Your task to perform on an android device: Search for a new skincare product Image 0: 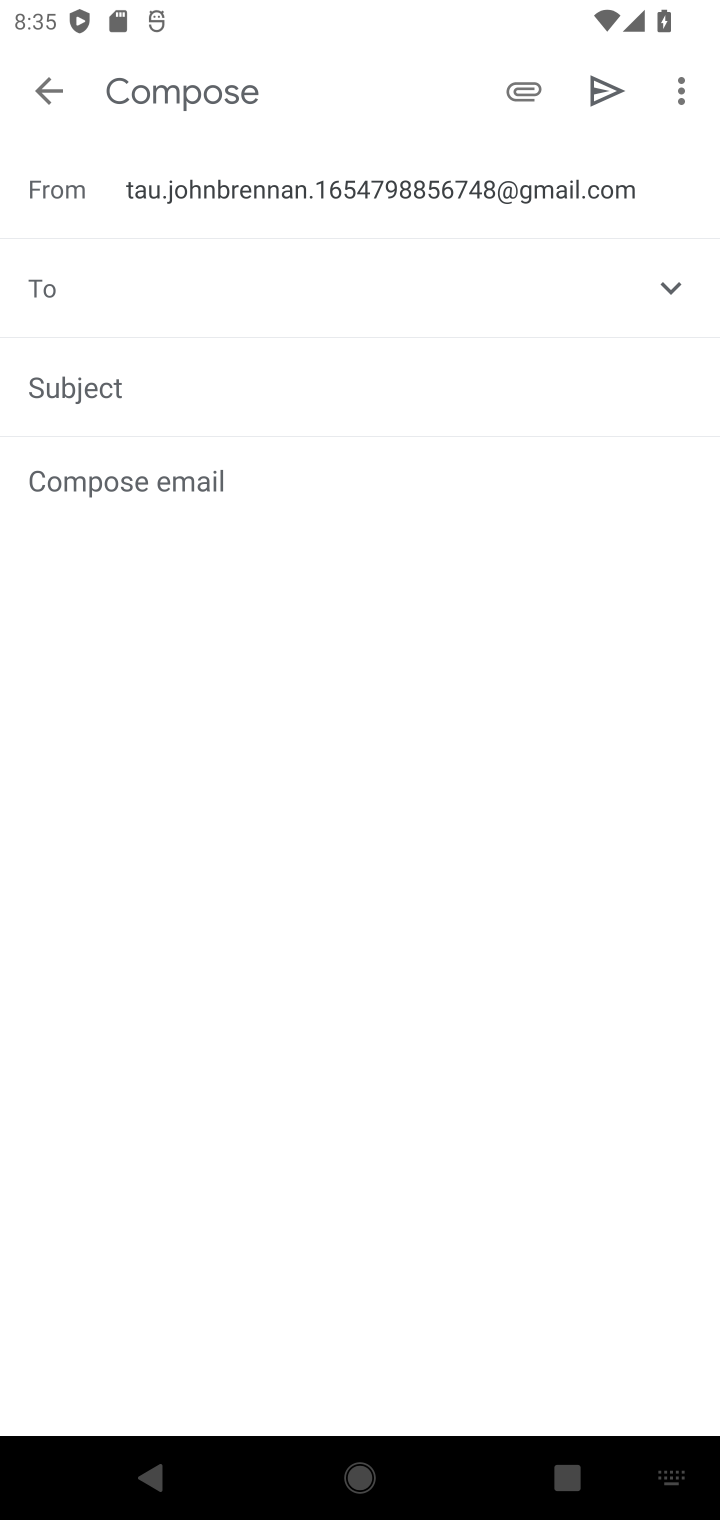
Step 0: press home button
Your task to perform on an android device: Search for a new skincare product Image 1: 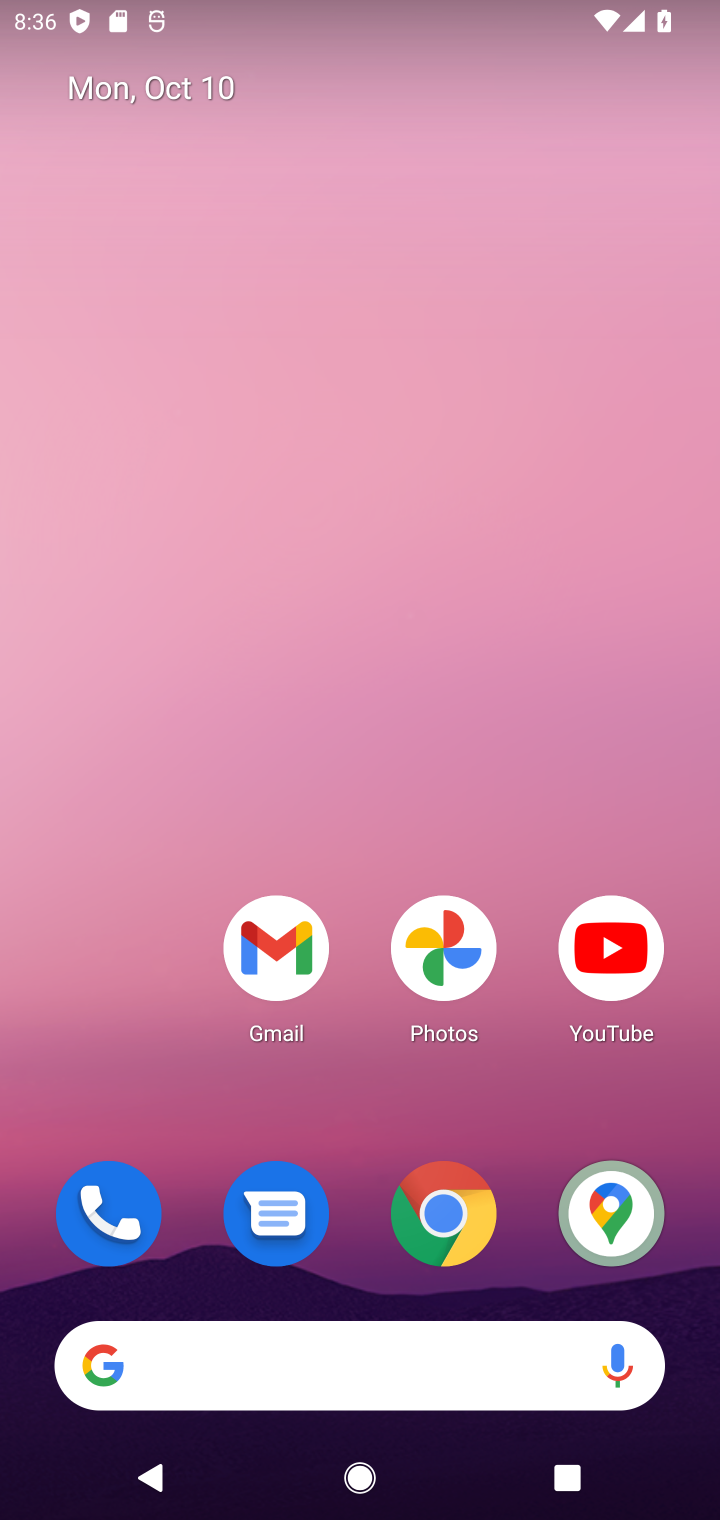
Step 1: click (278, 1384)
Your task to perform on an android device: Search for a new skincare product Image 2: 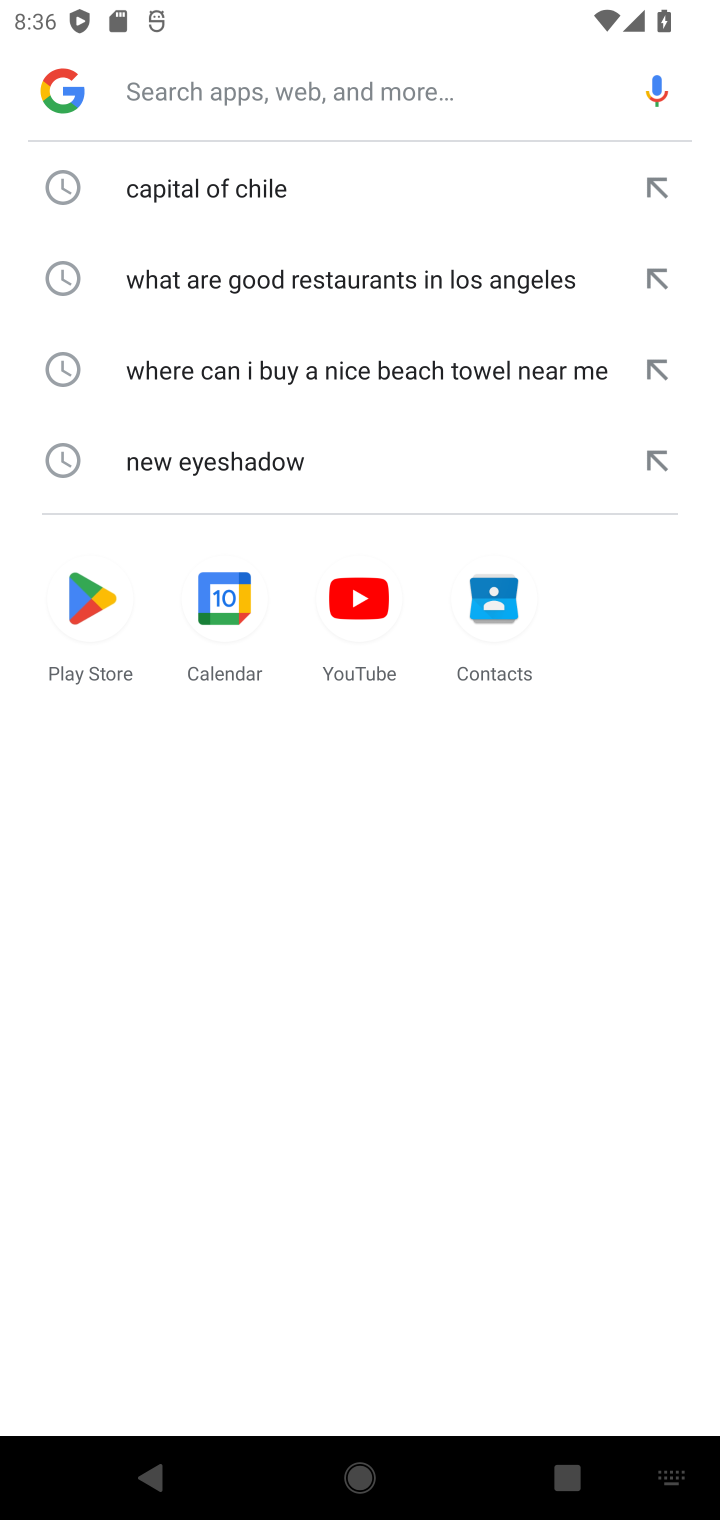
Step 2: click (185, 101)
Your task to perform on an android device: Search for a new skincare product Image 3: 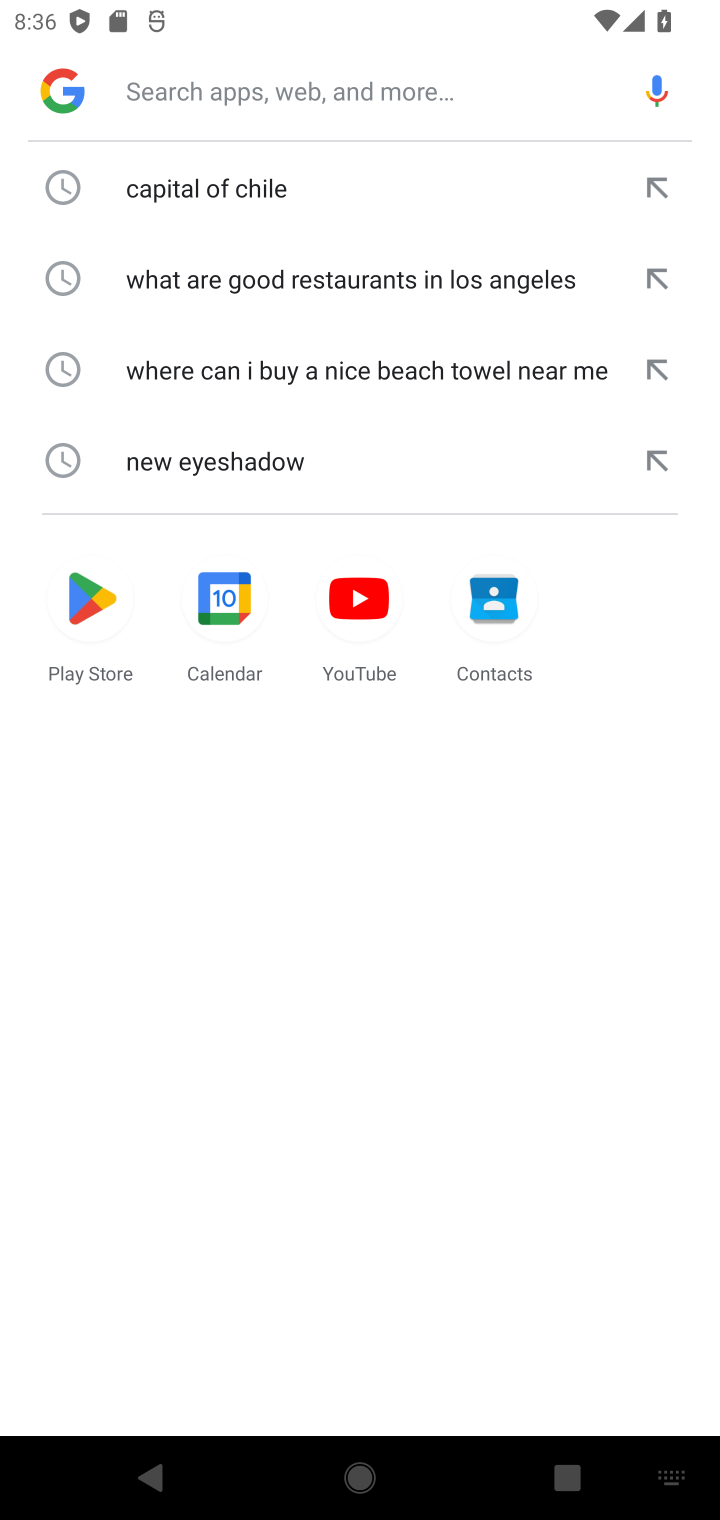
Step 3: type "new skincare product"
Your task to perform on an android device: Search for a new skincare product Image 4: 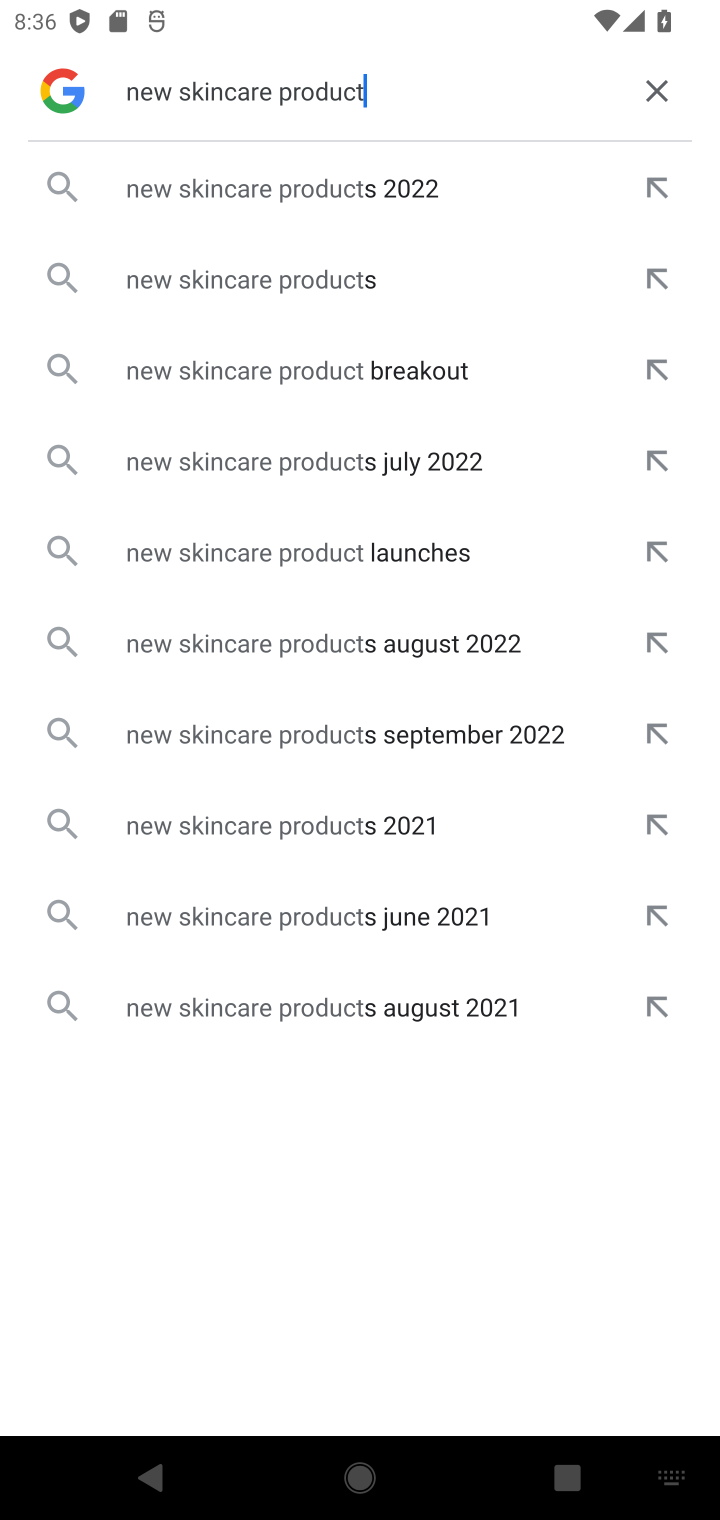
Step 4: click (270, 174)
Your task to perform on an android device: Search for a new skincare product Image 5: 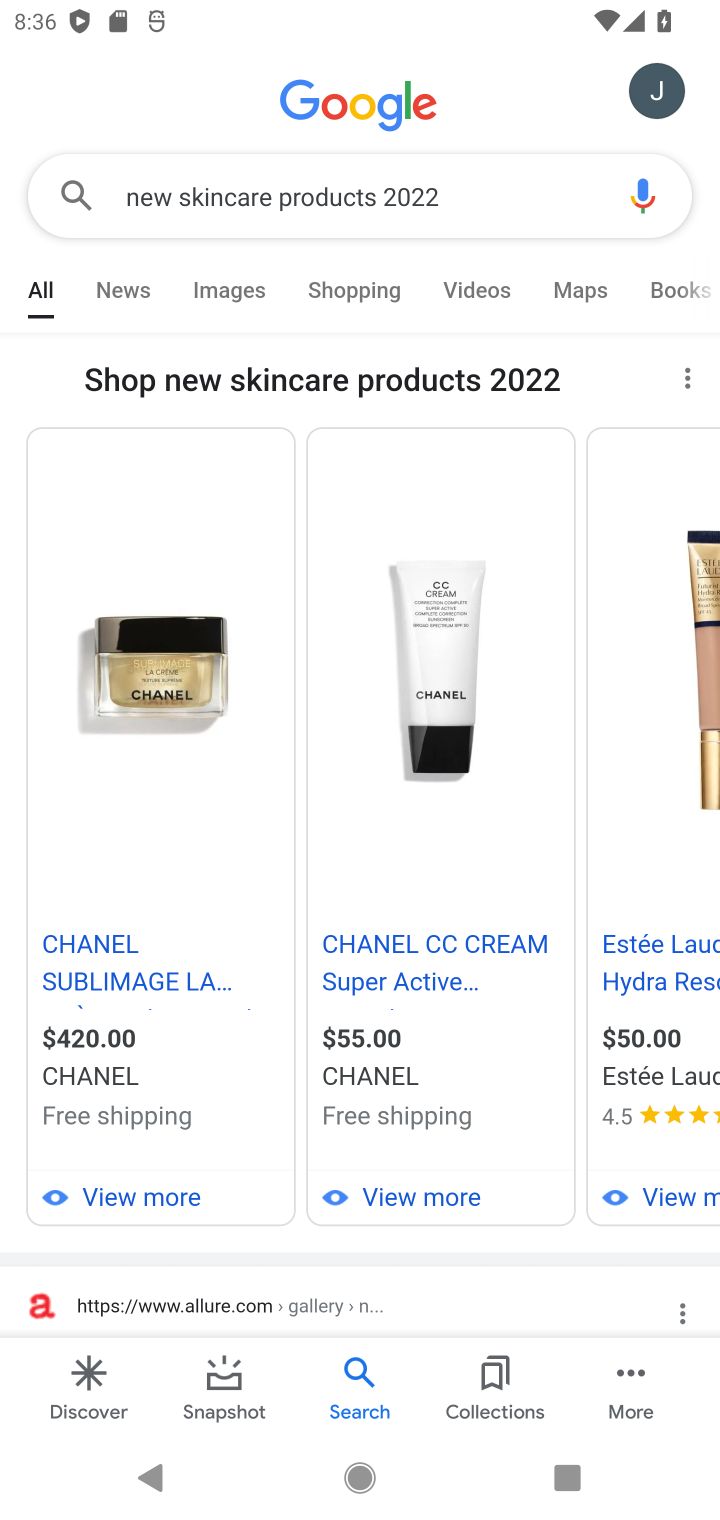
Step 5: task complete